Your task to perform on an android device: check the backup settings in the google photos Image 0: 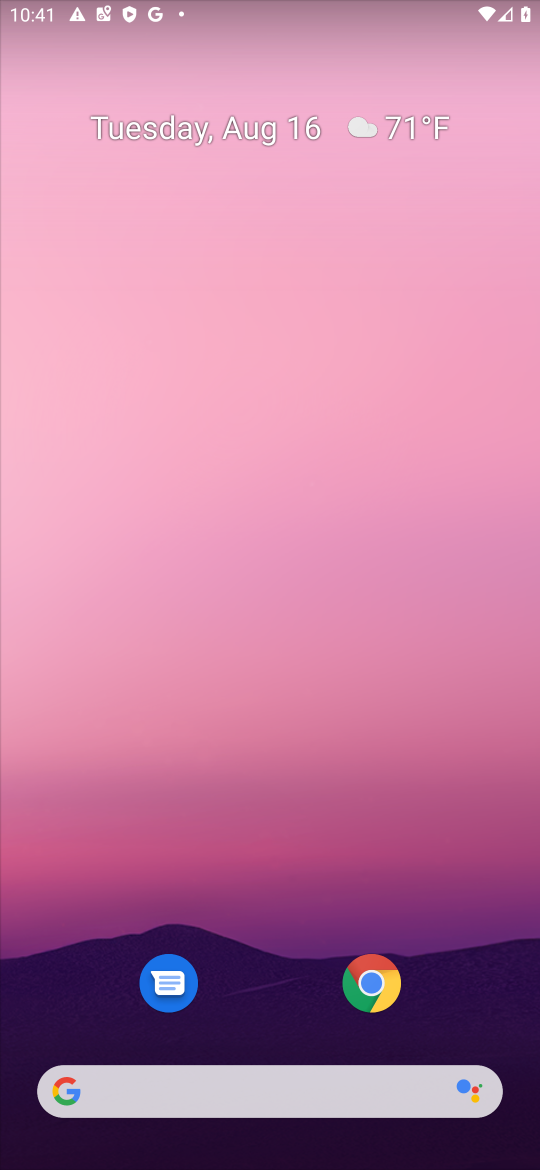
Step 0: drag from (273, 1083) to (400, 1)
Your task to perform on an android device: check the backup settings in the google photos Image 1: 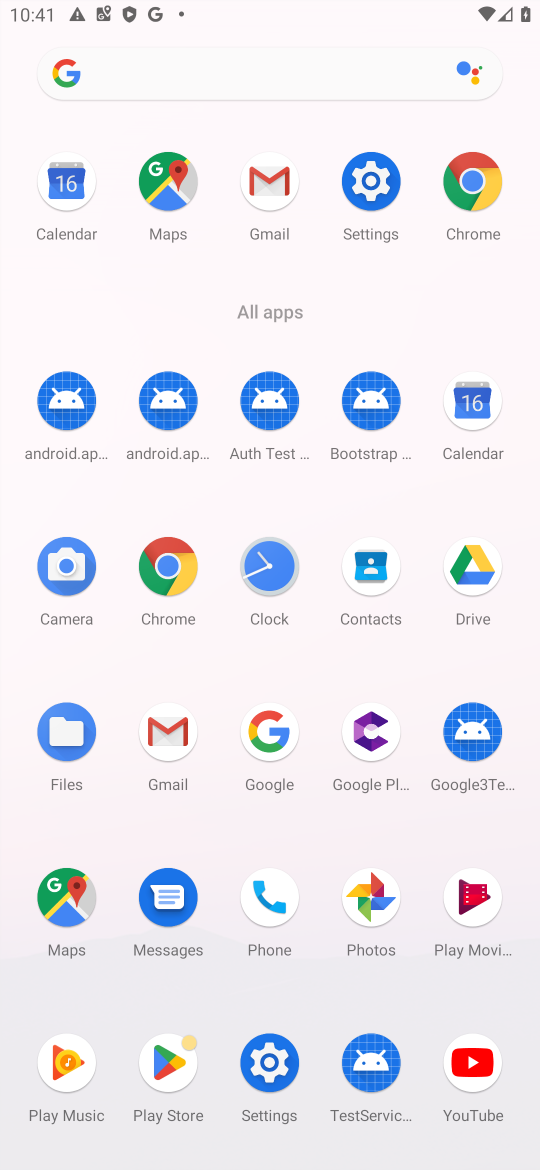
Step 1: click (381, 884)
Your task to perform on an android device: check the backup settings in the google photos Image 2: 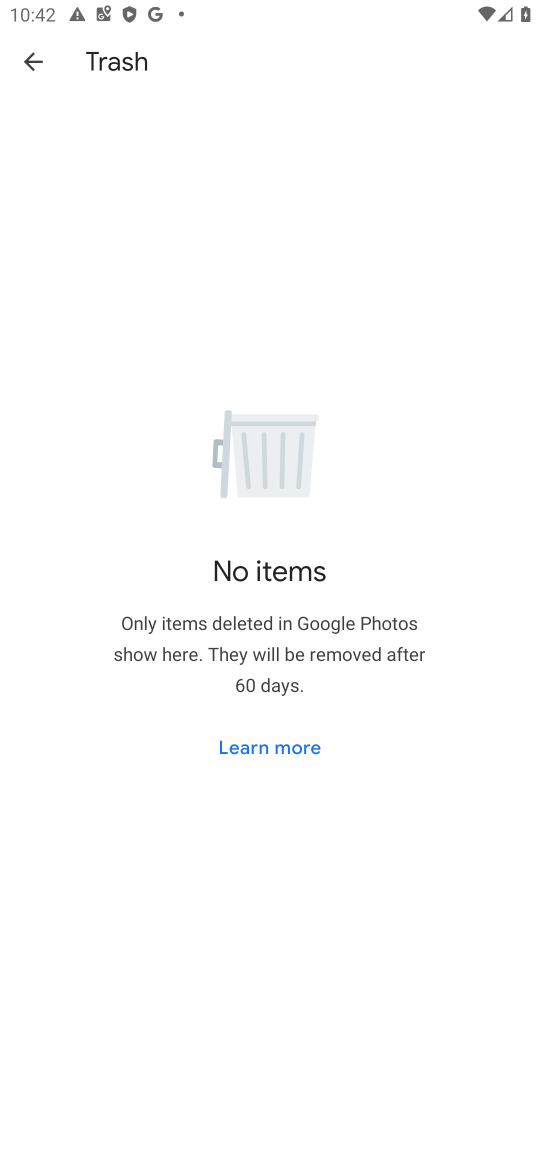
Step 2: click (44, 60)
Your task to perform on an android device: check the backup settings in the google photos Image 3: 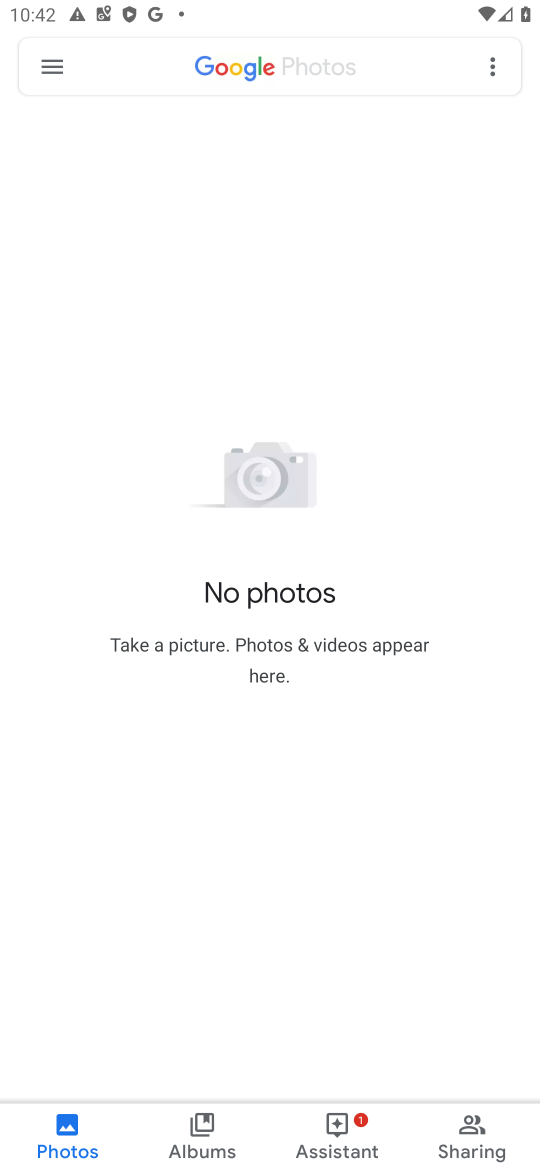
Step 3: click (44, 60)
Your task to perform on an android device: check the backup settings in the google photos Image 4: 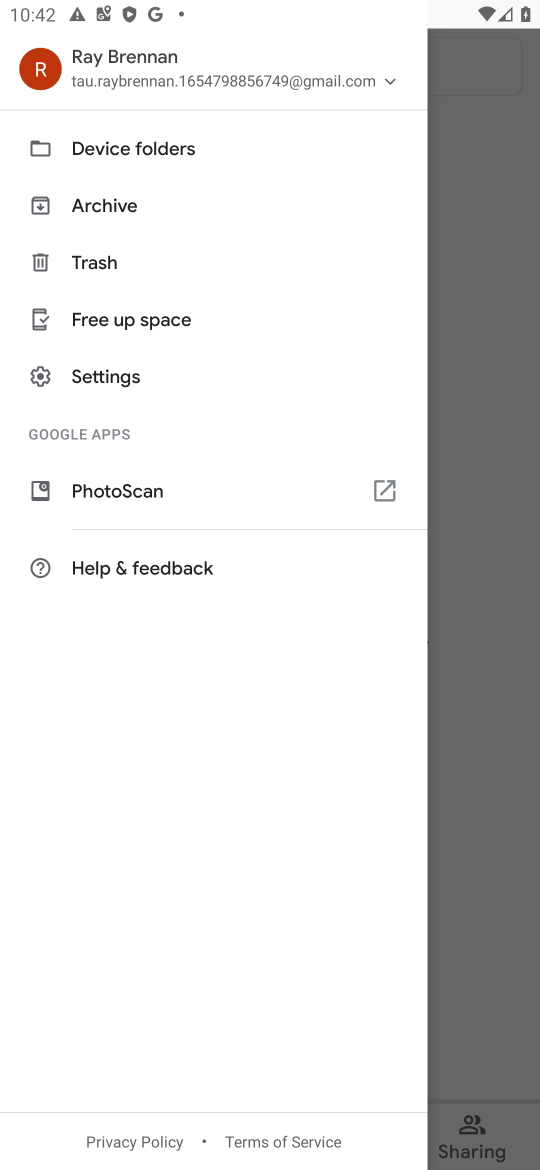
Step 4: click (89, 367)
Your task to perform on an android device: check the backup settings in the google photos Image 5: 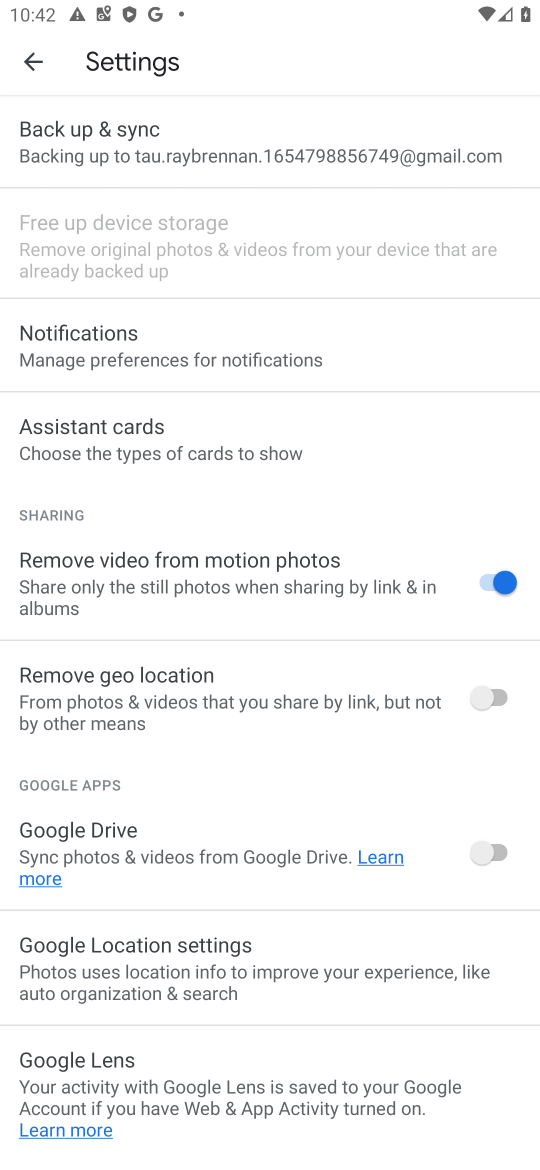
Step 5: click (138, 134)
Your task to perform on an android device: check the backup settings in the google photos Image 6: 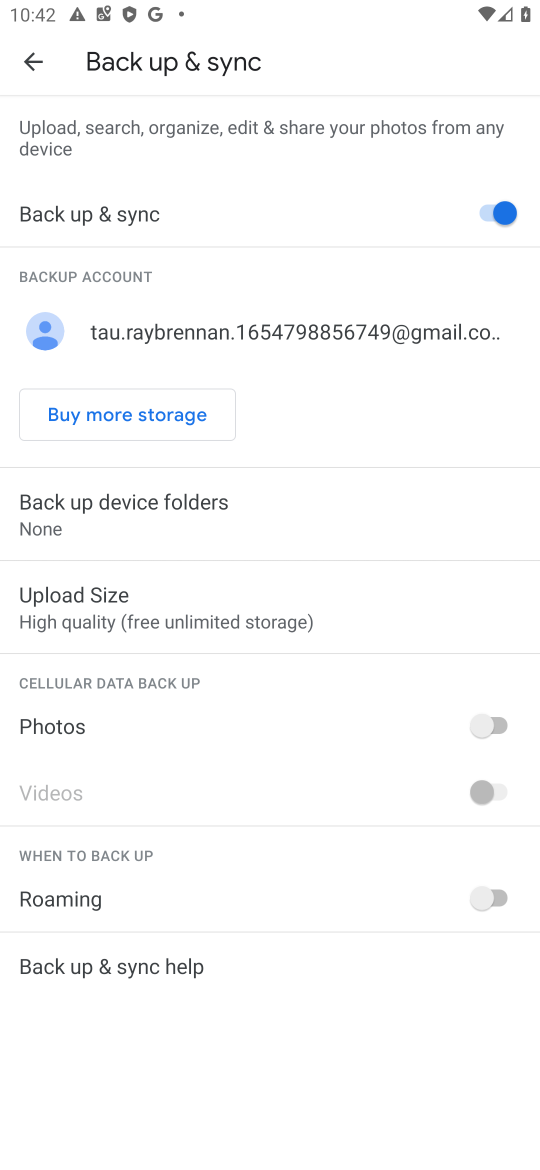
Step 6: task complete